Your task to perform on an android device: open the mobile data screen to see how much data has been used Image 0: 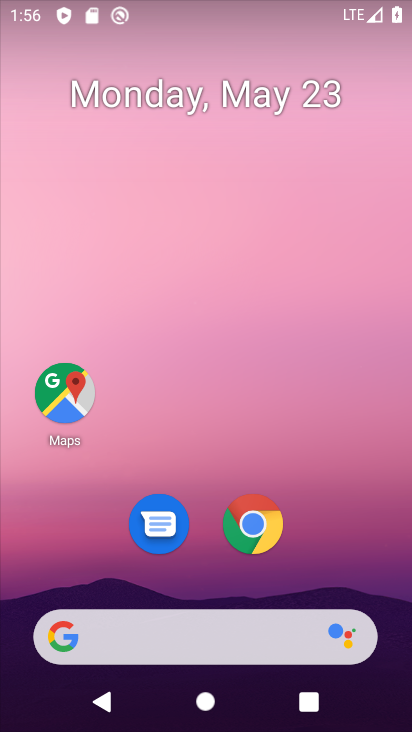
Step 0: drag from (269, 447) to (233, 21)
Your task to perform on an android device: open the mobile data screen to see how much data has been used Image 1: 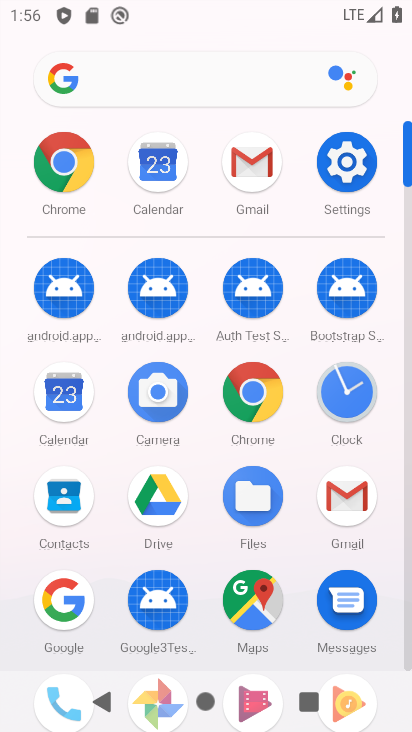
Step 1: click (352, 165)
Your task to perform on an android device: open the mobile data screen to see how much data has been used Image 2: 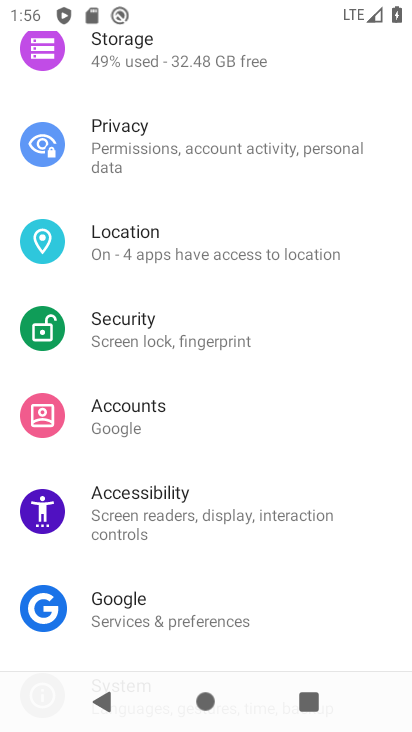
Step 2: drag from (267, 333) to (304, 655)
Your task to perform on an android device: open the mobile data screen to see how much data has been used Image 3: 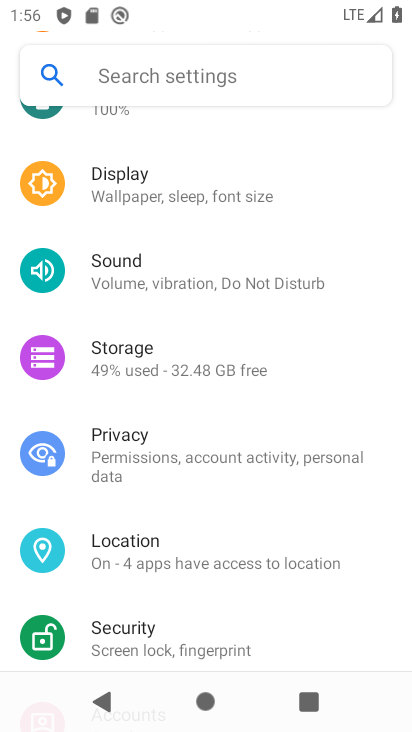
Step 3: drag from (216, 353) to (206, 667)
Your task to perform on an android device: open the mobile data screen to see how much data has been used Image 4: 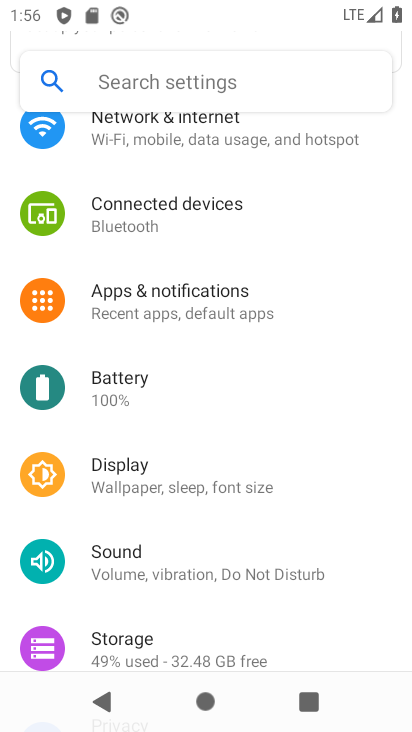
Step 4: drag from (215, 408) to (243, 626)
Your task to perform on an android device: open the mobile data screen to see how much data has been used Image 5: 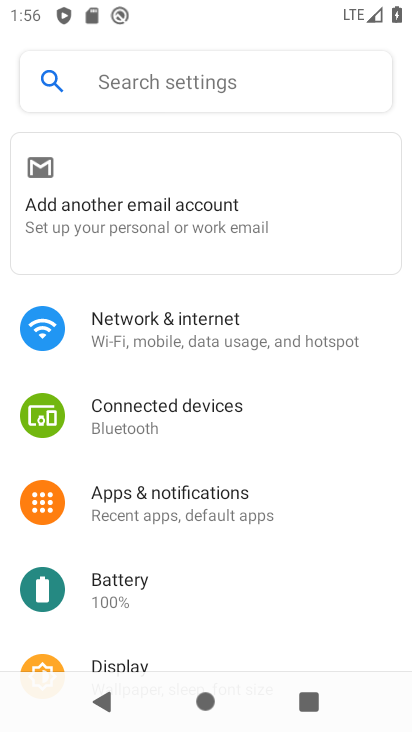
Step 5: click (270, 329)
Your task to perform on an android device: open the mobile data screen to see how much data has been used Image 6: 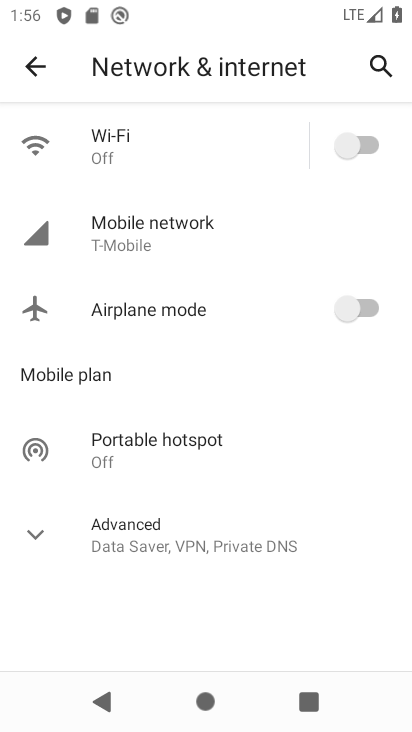
Step 6: click (198, 224)
Your task to perform on an android device: open the mobile data screen to see how much data has been used Image 7: 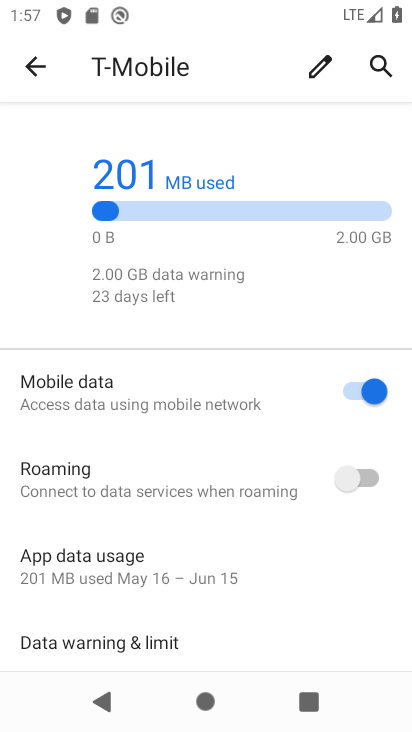
Step 7: task complete